Your task to perform on an android device: make emails show in primary in the gmail app Image 0: 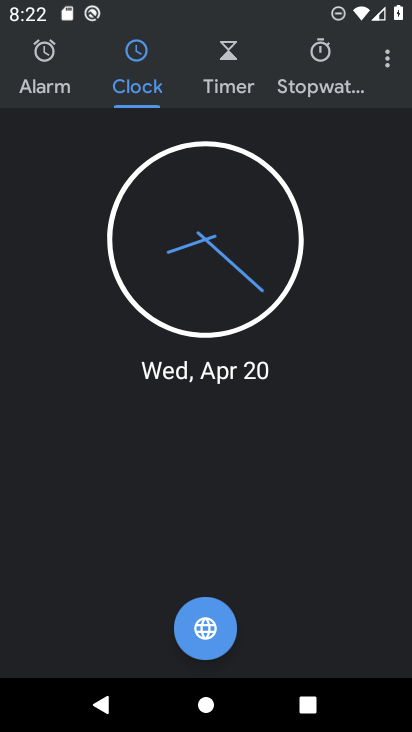
Step 0: press home button
Your task to perform on an android device: make emails show in primary in the gmail app Image 1: 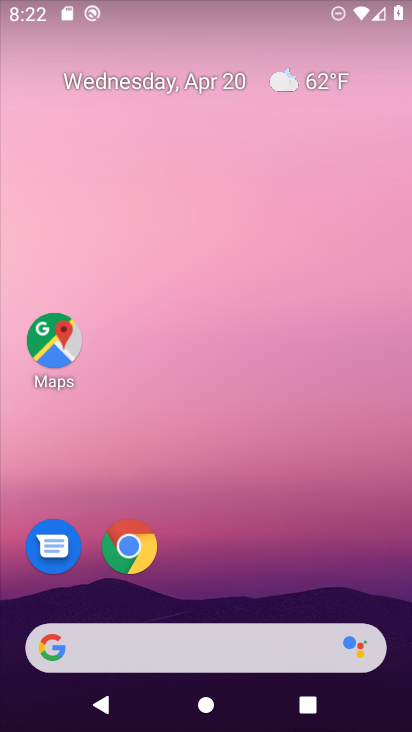
Step 1: drag from (261, 436) to (273, 120)
Your task to perform on an android device: make emails show in primary in the gmail app Image 2: 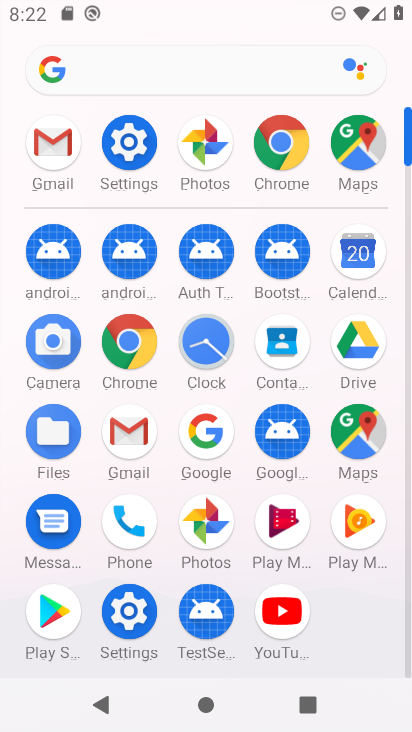
Step 2: click (58, 145)
Your task to perform on an android device: make emails show in primary in the gmail app Image 3: 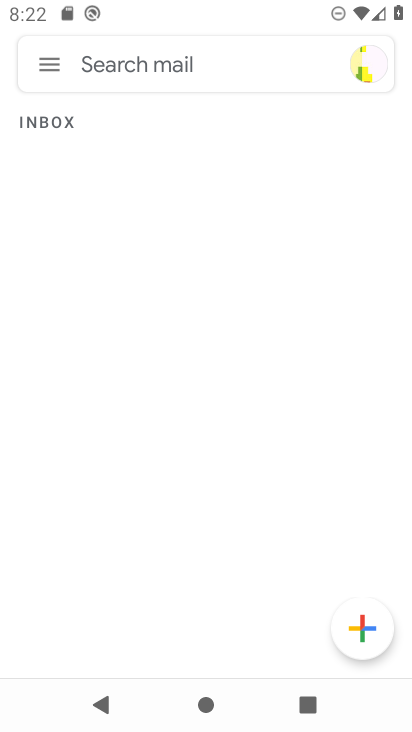
Step 3: click (50, 60)
Your task to perform on an android device: make emails show in primary in the gmail app Image 4: 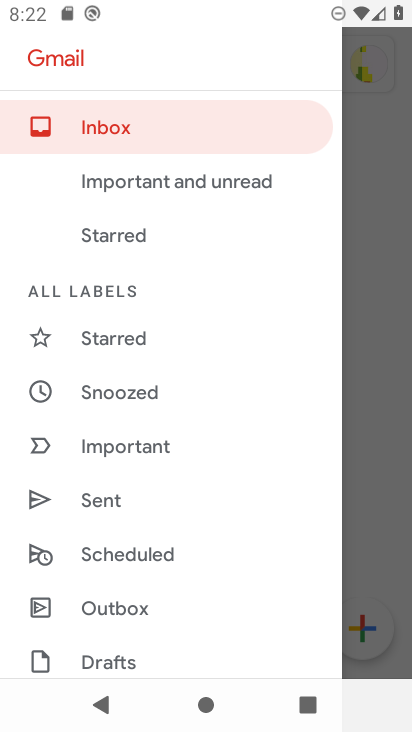
Step 4: drag from (173, 583) to (200, 149)
Your task to perform on an android device: make emails show in primary in the gmail app Image 5: 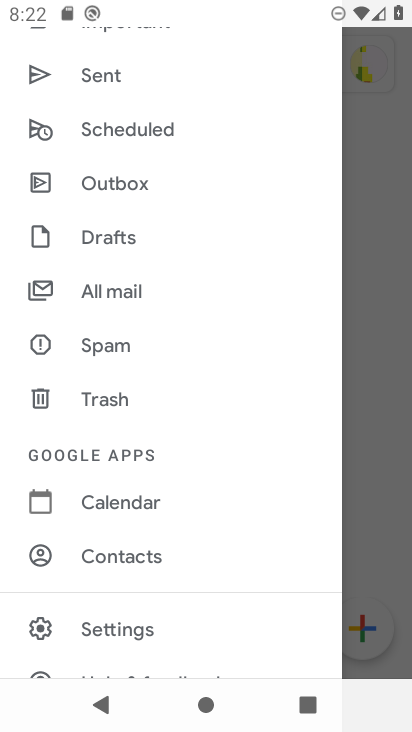
Step 5: click (139, 620)
Your task to perform on an android device: make emails show in primary in the gmail app Image 6: 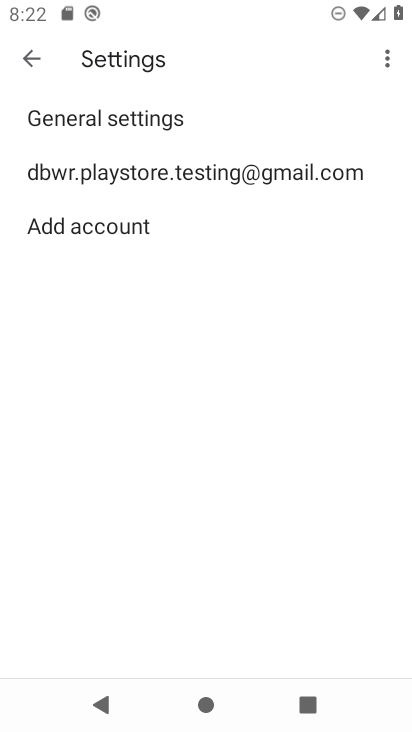
Step 6: click (286, 171)
Your task to perform on an android device: make emails show in primary in the gmail app Image 7: 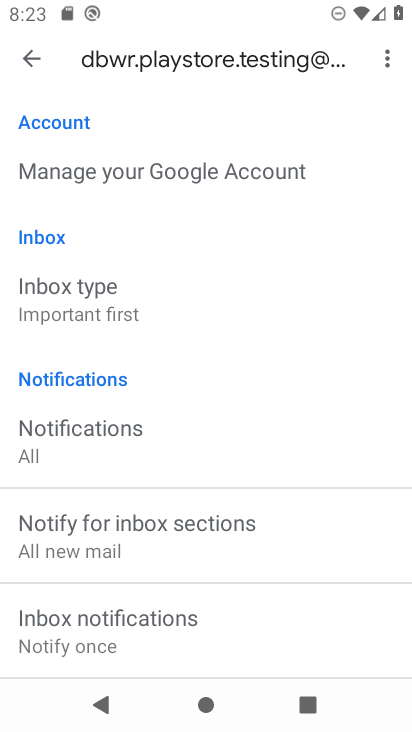
Step 7: click (79, 294)
Your task to perform on an android device: make emails show in primary in the gmail app Image 8: 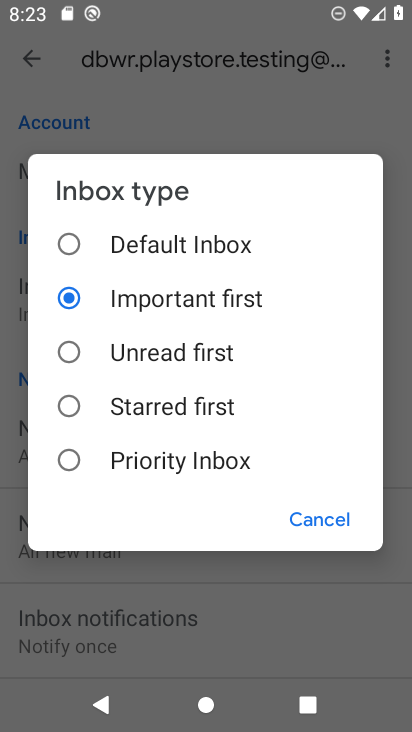
Step 8: click (67, 230)
Your task to perform on an android device: make emails show in primary in the gmail app Image 9: 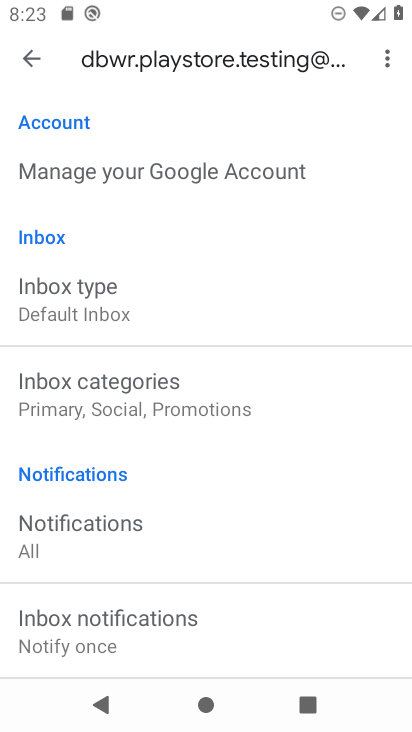
Step 9: click (117, 386)
Your task to perform on an android device: make emails show in primary in the gmail app Image 10: 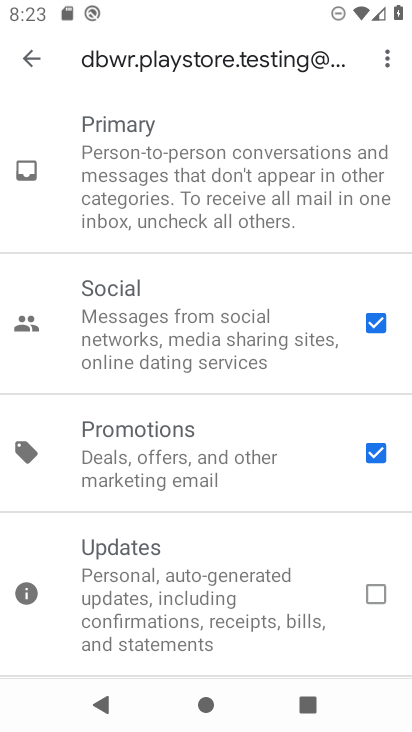
Step 10: click (374, 449)
Your task to perform on an android device: make emails show in primary in the gmail app Image 11: 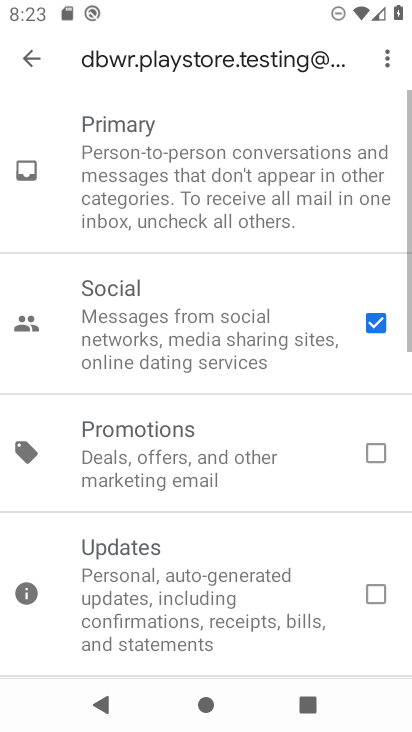
Step 11: click (373, 319)
Your task to perform on an android device: make emails show in primary in the gmail app Image 12: 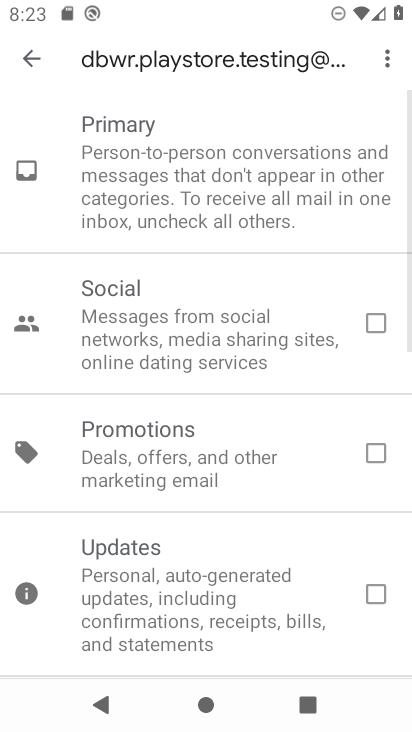
Step 12: click (33, 49)
Your task to perform on an android device: make emails show in primary in the gmail app Image 13: 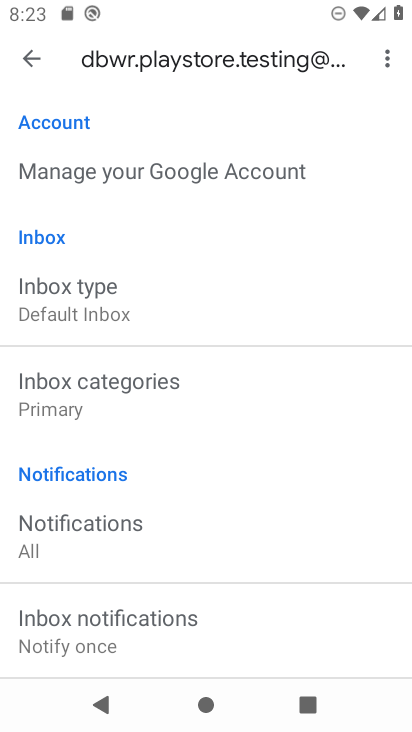
Step 13: task complete